Your task to perform on an android device: find which apps use the phone's location Image 0: 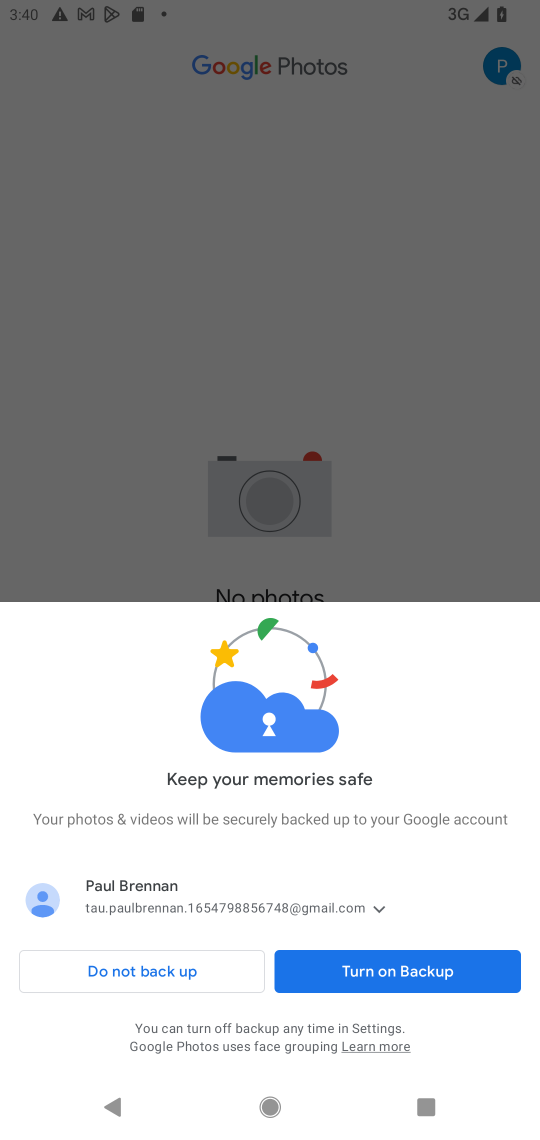
Step 0: press home button
Your task to perform on an android device: find which apps use the phone's location Image 1: 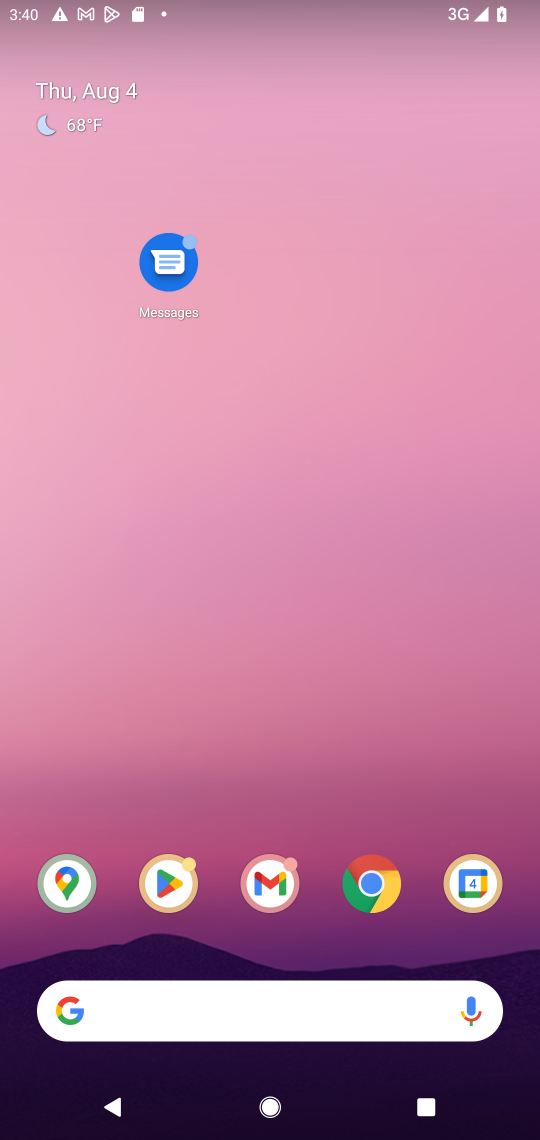
Step 1: drag from (297, 948) to (304, 45)
Your task to perform on an android device: find which apps use the phone's location Image 2: 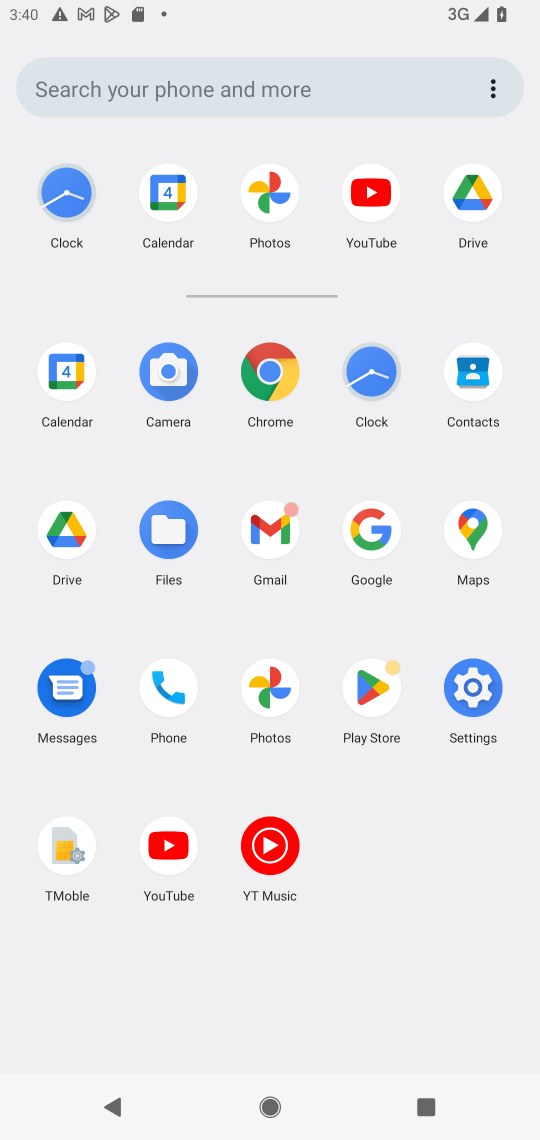
Step 2: click (481, 684)
Your task to perform on an android device: find which apps use the phone's location Image 3: 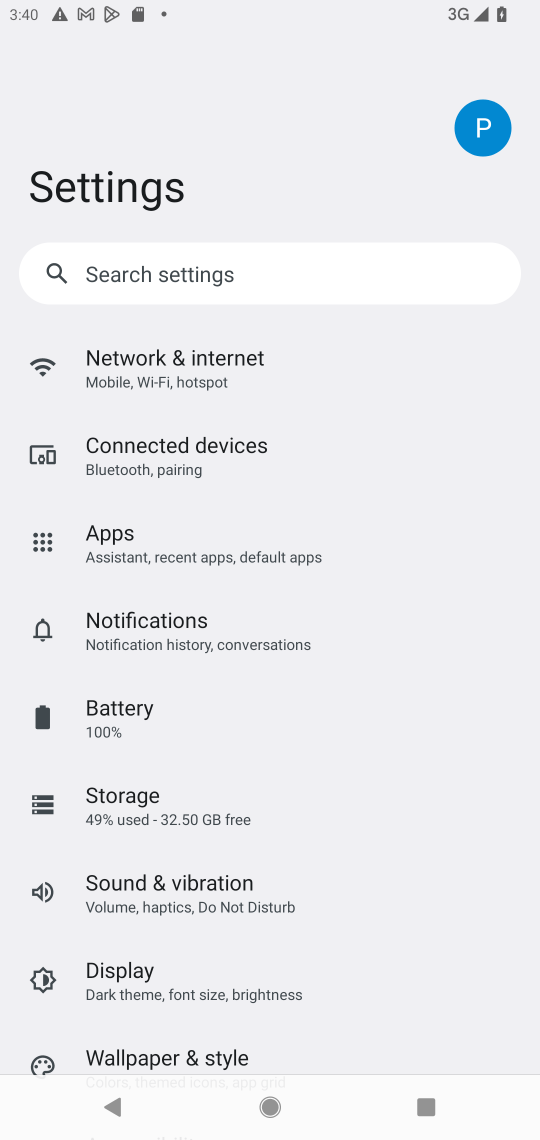
Step 3: drag from (197, 938) to (237, 398)
Your task to perform on an android device: find which apps use the phone's location Image 4: 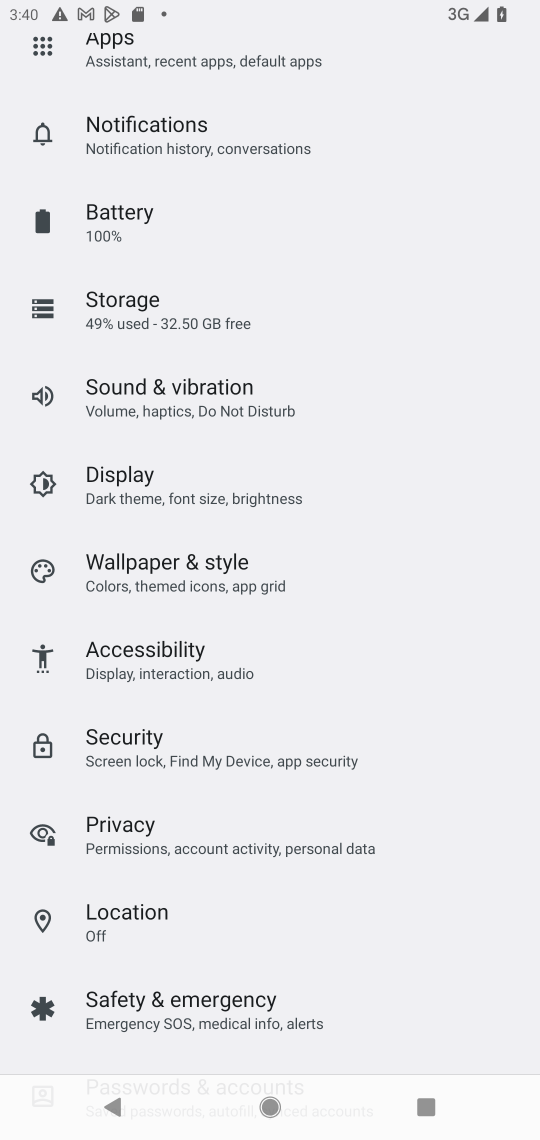
Step 4: click (108, 920)
Your task to perform on an android device: find which apps use the phone's location Image 5: 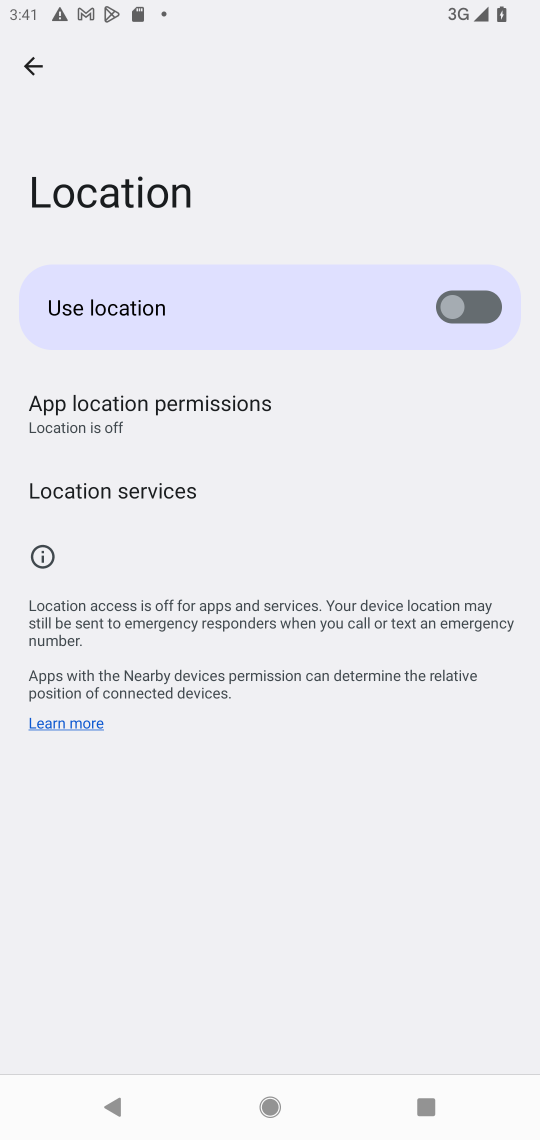
Step 5: click (81, 403)
Your task to perform on an android device: find which apps use the phone's location Image 6: 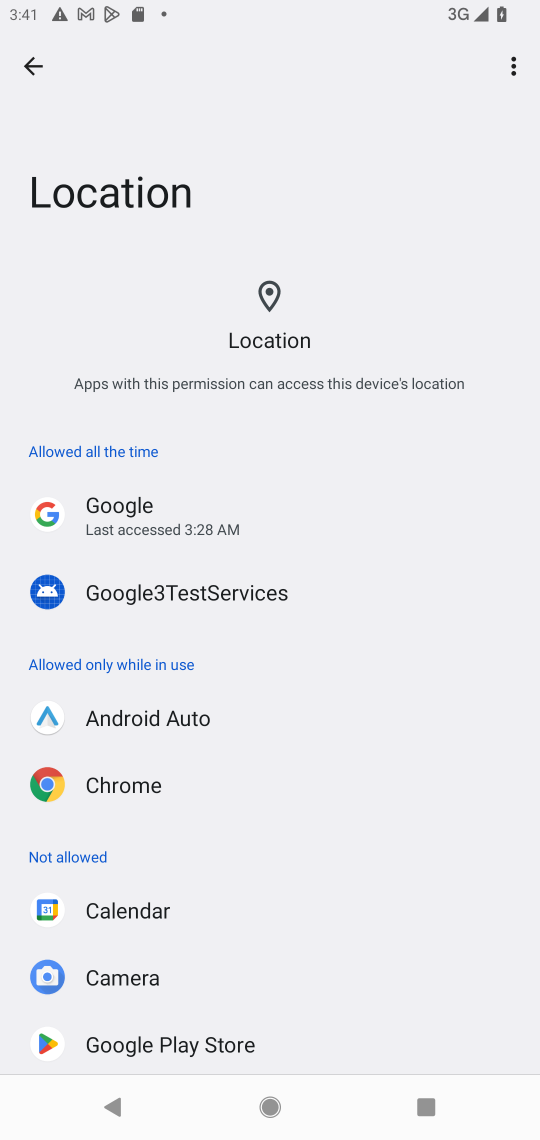
Step 6: task complete